Your task to perform on an android device: turn off improve location accuracy Image 0: 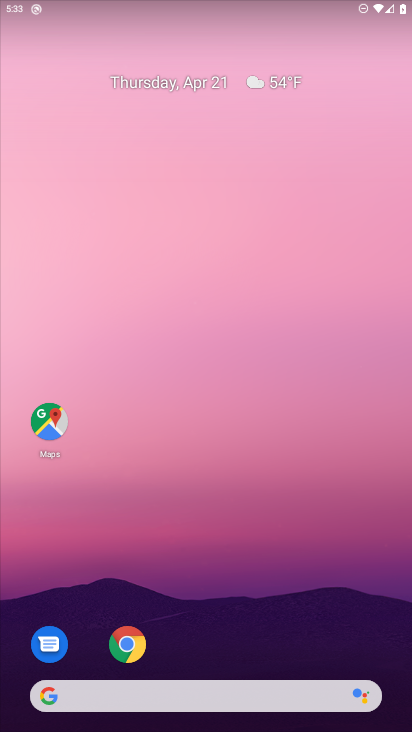
Step 0: drag from (249, 672) to (343, 257)
Your task to perform on an android device: turn off improve location accuracy Image 1: 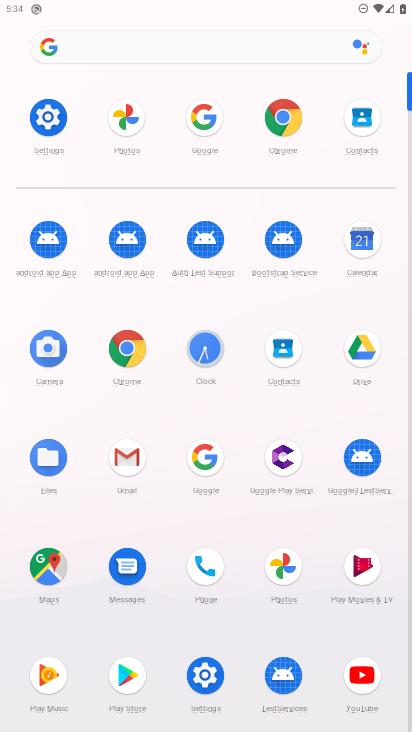
Step 1: click (45, 111)
Your task to perform on an android device: turn off improve location accuracy Image 2: 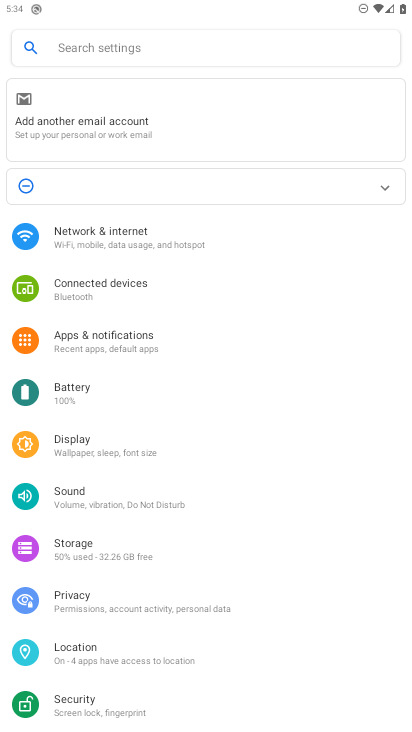
Step 2: click (38, 662)
Your task to perform on an android device: turn off improve location accuracy Image 3: 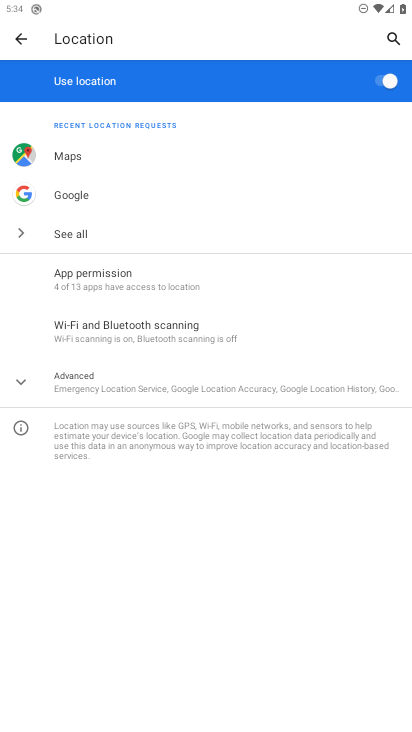
Step 3: click (84, 381)
Your task to perform on an android device: turn off improve location accuracy Image 4: 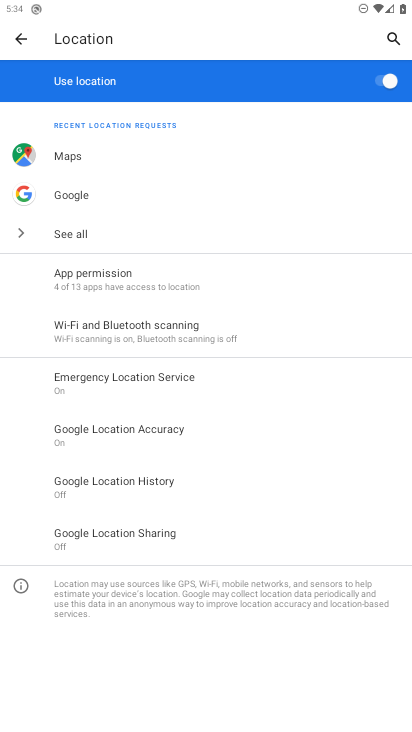
Step 4: click (89, 437)
Your task to perform on an android device: turn off improve location accuracy Image 5: 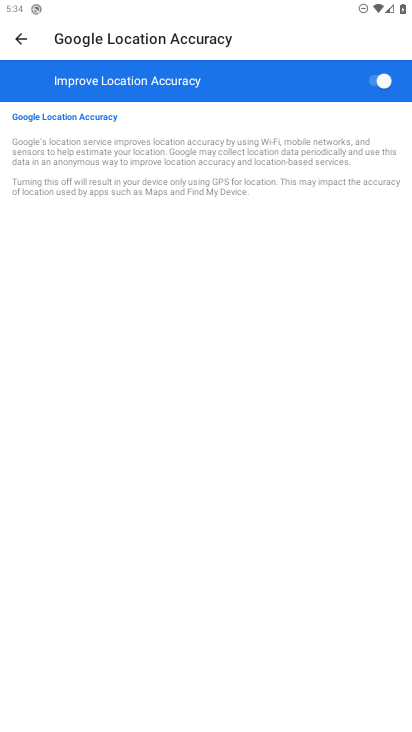
Step 5: click (376, 79)
Your task to perform on an android device: turn off improve location accuracy Image 6: 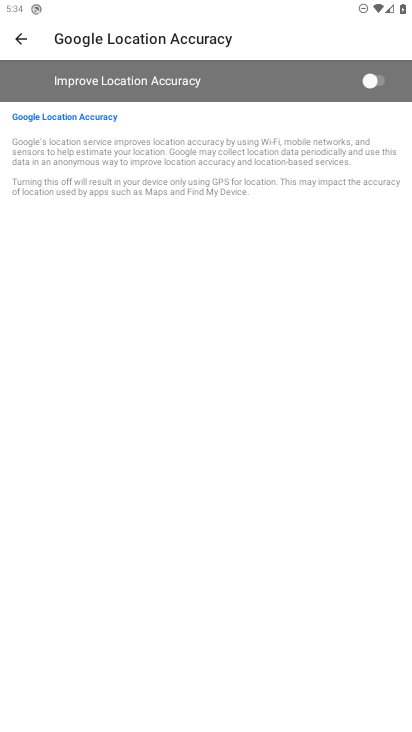
Step 6: task complete